Your task to perform on an android device: turn on showing notifications on the lock screen Image 0: 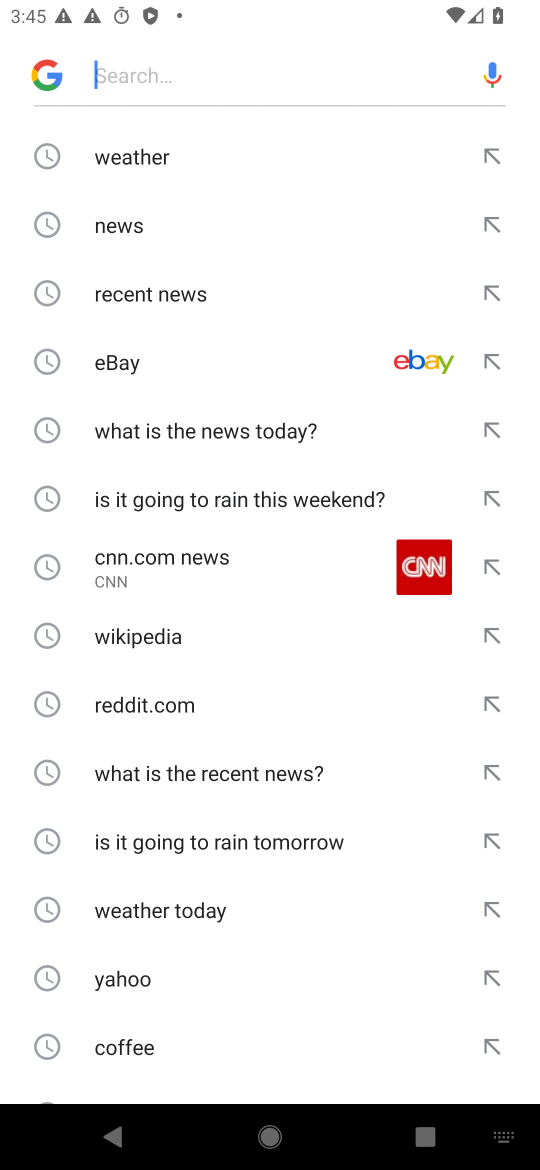
Step 0: press home button
Your task to perform on an android device: turn on showing notifications on the lock screen Image 1: 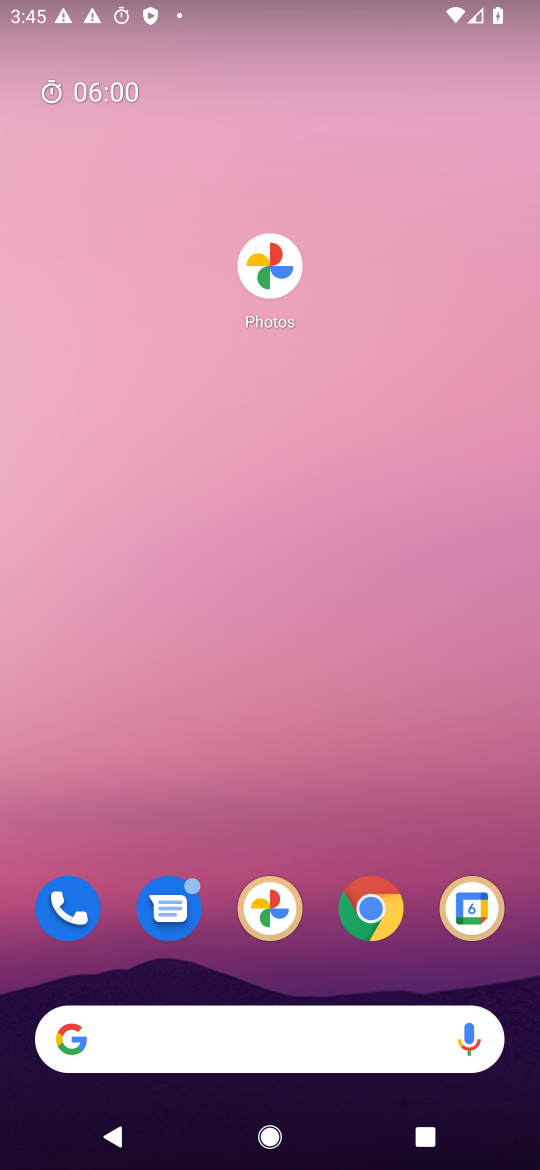
Step 1: drag from (196, 865) to (222, 233)
Your task to perform on an android device: turn on showing notifications on the lock screen Image 2: 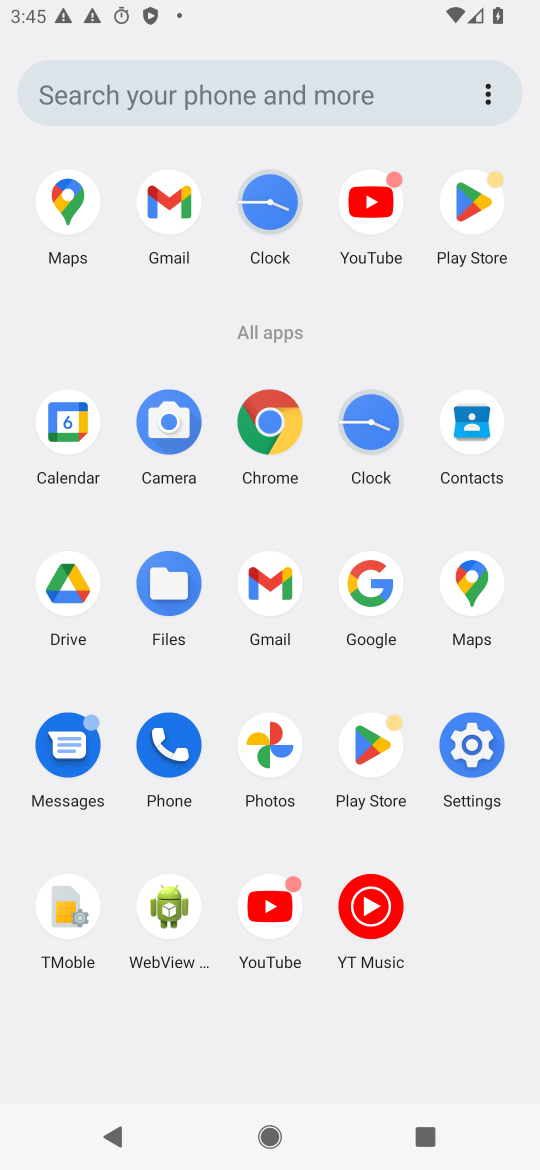
Step 2: click (484, 758)
Your task to perform on an android device: turn on showing notifications on the lock screen Image 3: 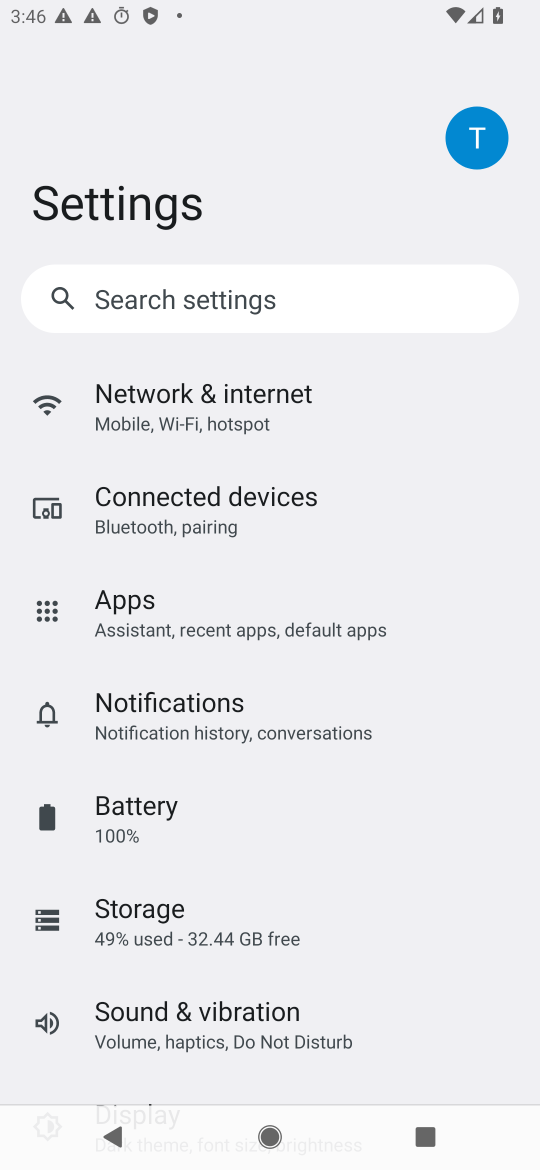
Step 3: click (189, 724)
Your task to perform on an android device: turn on showing notifications on the lock screen Image 4: 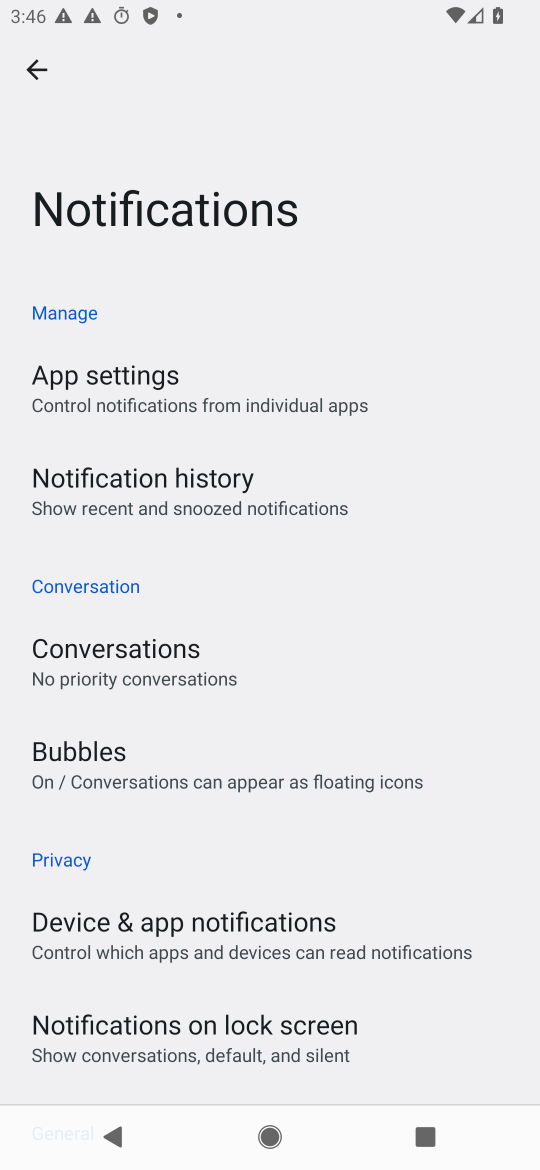
Step 4: drag from (273, 982) to (293, 506)
Your task to perform on an android device: turn on showing notifications on the lock screen Image 5: 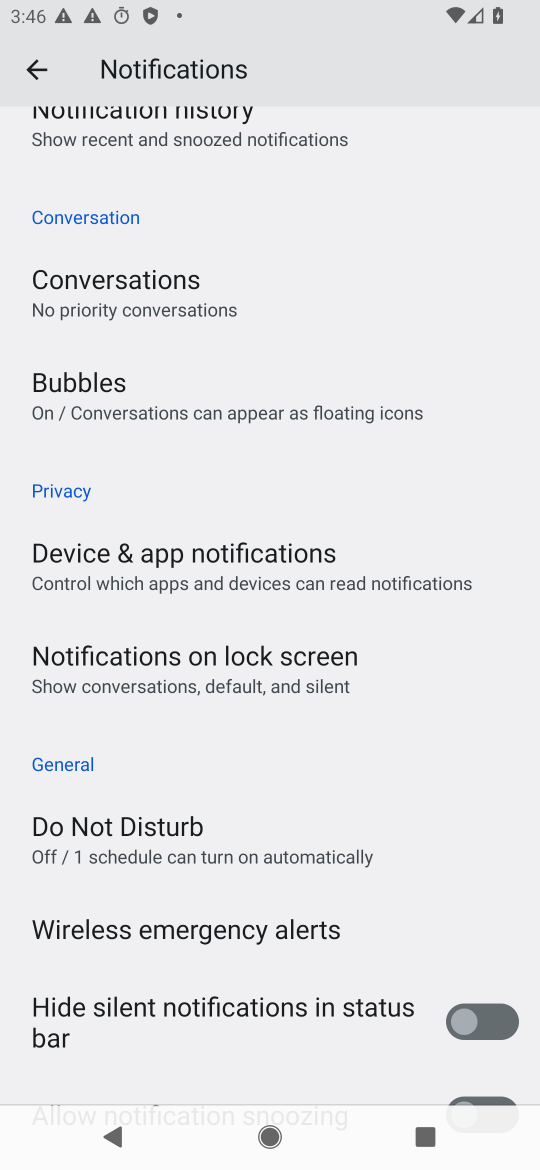
Step 5: click (227, 675)
Your task to perform on an android device: turn on showing notifications on the lock screen Image 6: 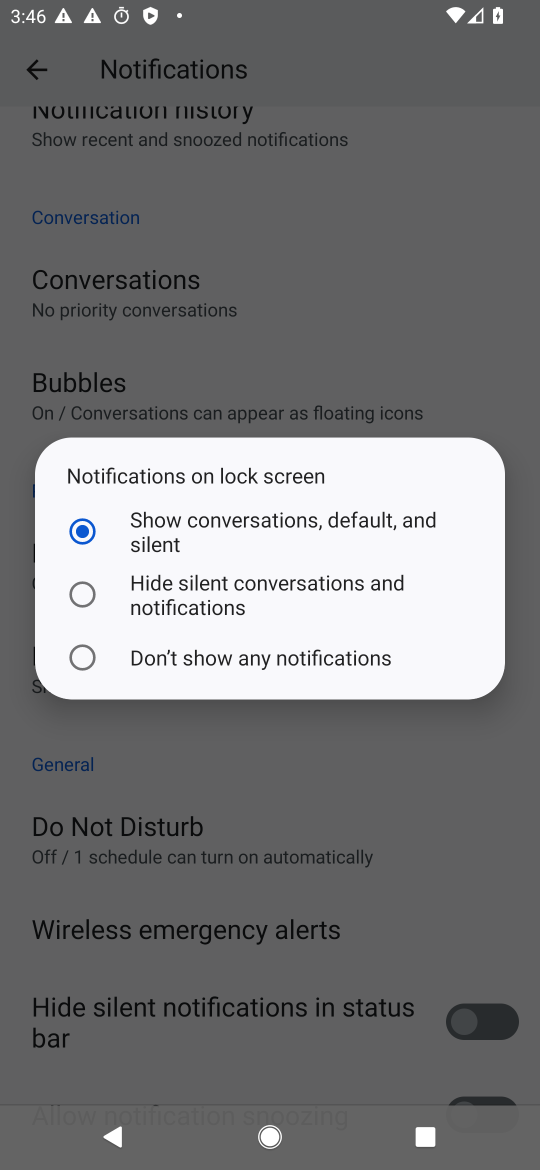
Step 6: task complete